Your task to perform on an android device: Open Youtube and go to "Your channel" Image 0: 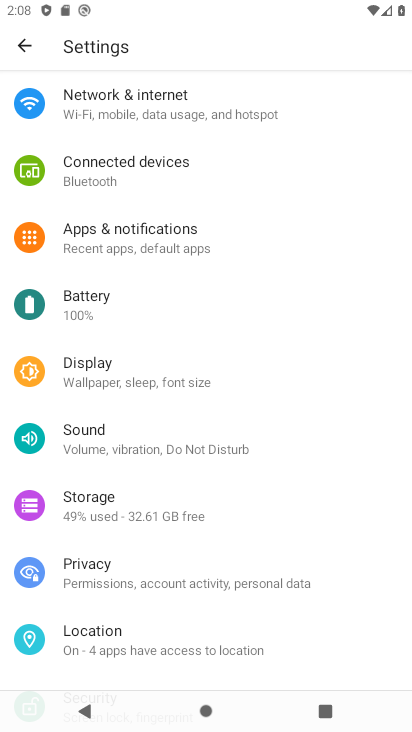
Step 0: press back button
Your task to perform on an android device: Open Youtube and go to "Your channel" Image 1: 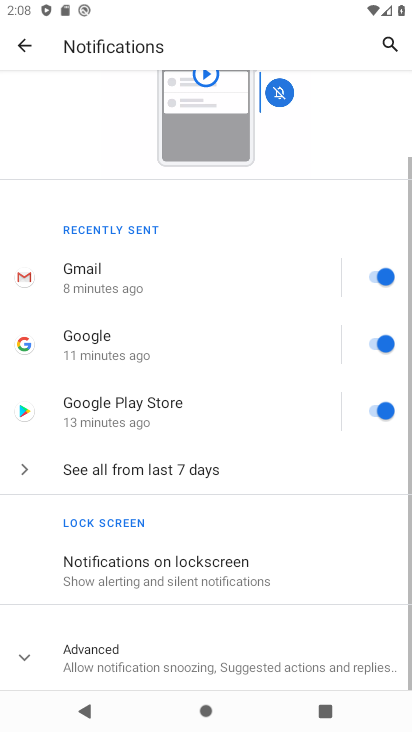
Step 1: press back button
Your task to perform on an android device: Open Youtube and go to "Your channel" Image 2: 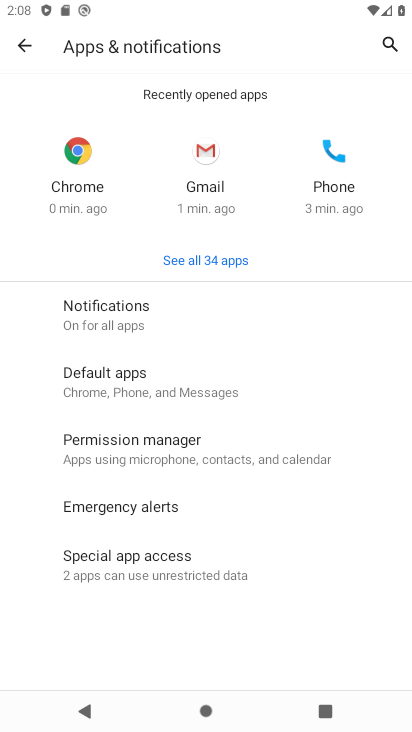
Step 2: press home button
Your task to perform on an android device: Open Youtube and go to "Your channel" Image 3: 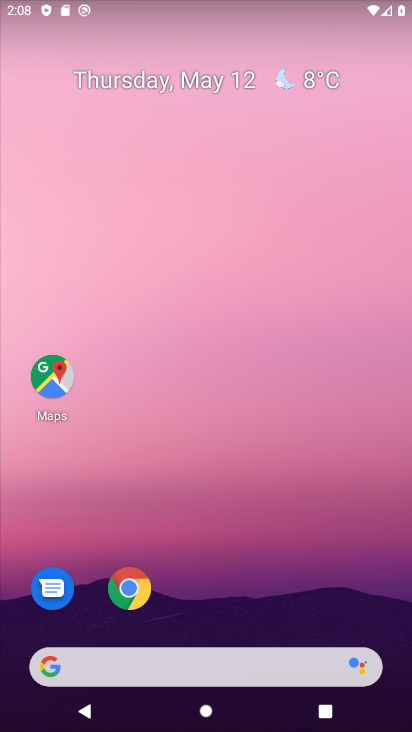
Step 3: drag from (249, 502) to (196, 15)
Your task to perform on an android device: Open Youtube and go to "Your channel" Image 4: 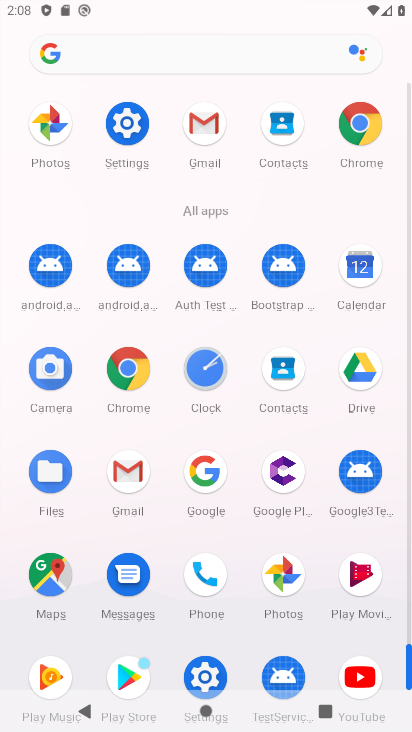
Step 4: drag from (16, 531) to (0, 191)
Your task to perform on an android device: Open Youtube and go to "Your channel" Image 5: 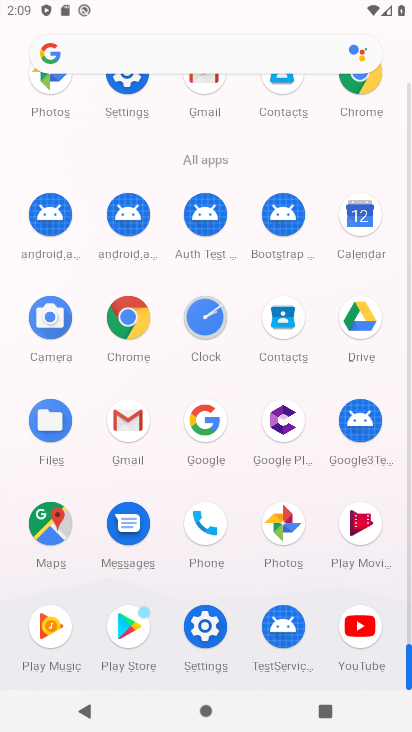
Step 5: click (359, 620)
Your task to perform on an android device: Open Youtube and go to "Your channel" Image 6: 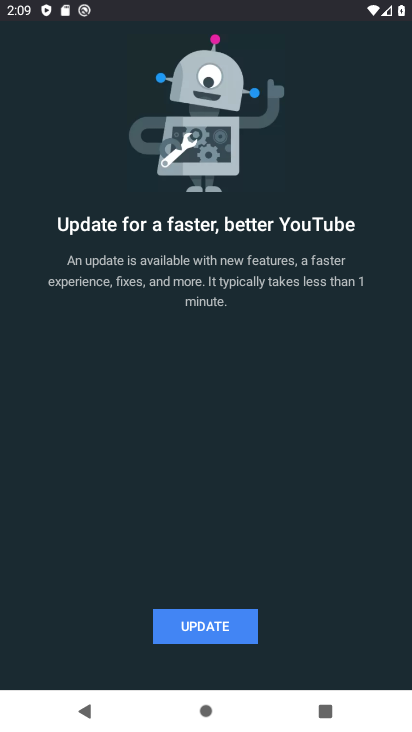
Step 6: click (210, 627)
Your task to perform on an android device: Open Youtube and go to "Your channel" Image 7: 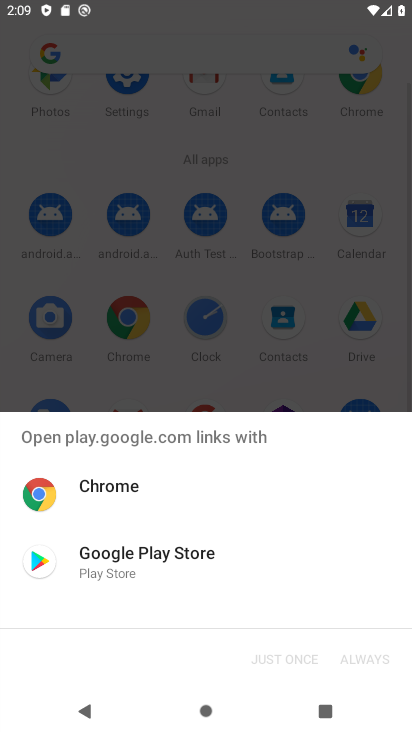
Step 7: click (98, 573)
Your task to perform on an android device: Open Youtube and go to "Your channel" Image 8: 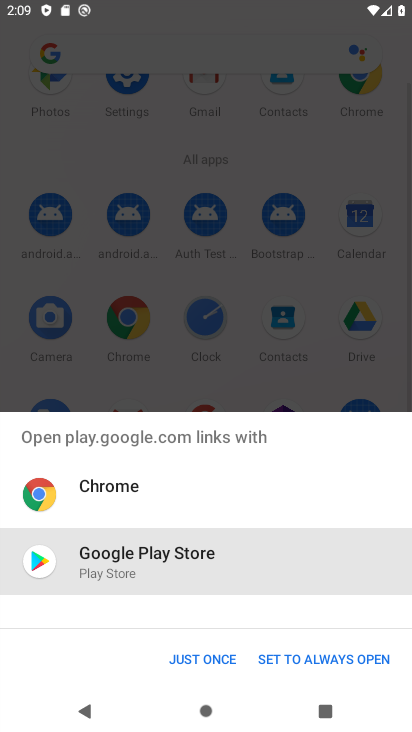
Step 8: click (194, 659)
Your task to perform on an android device: Open Youtube and go to "Your channel" Image 9: 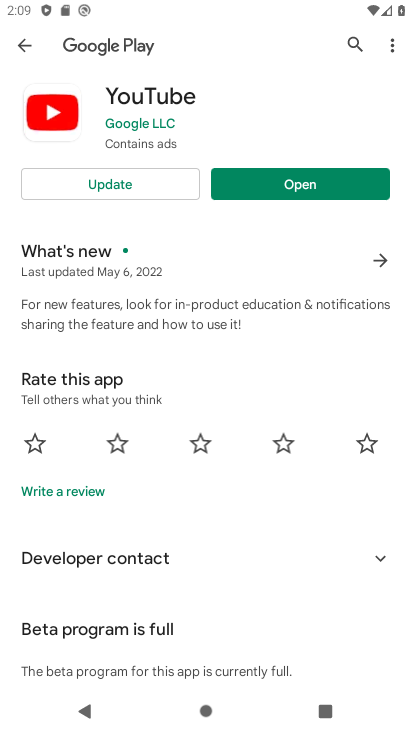
Step 9: click (142, 183)
Your task to perform on an android device: Open Youtube and go to "Your channel" Image 10: 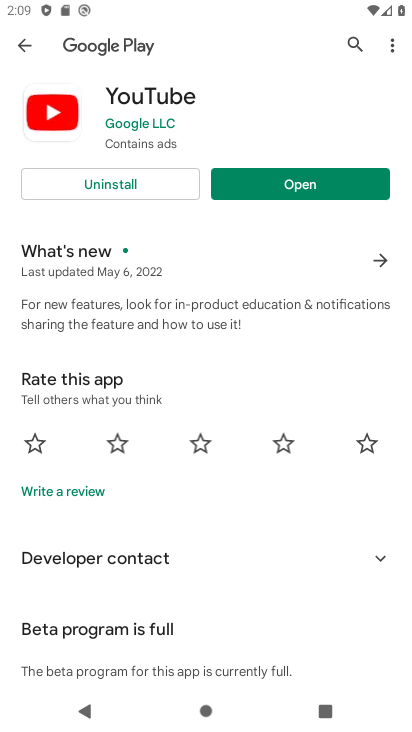
Step 10: click (289, 187)
Your task to perform on an android device: Open Youtube and go to "Your channel" Image 11: 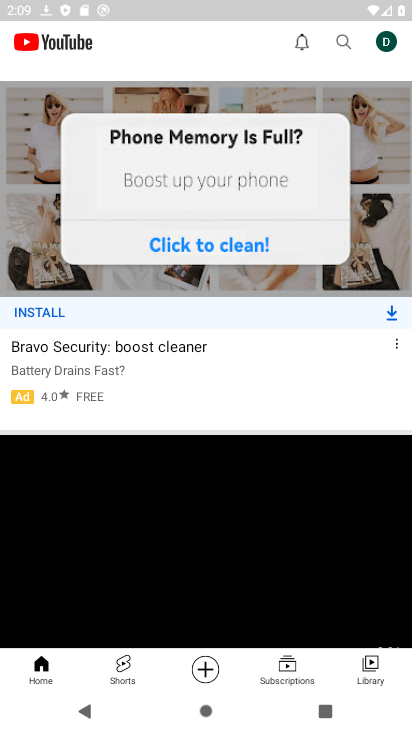
Step 11: click (370, 659)
Your task to perform on an android device: Open Youtube and go to "Your channel" Image 12: 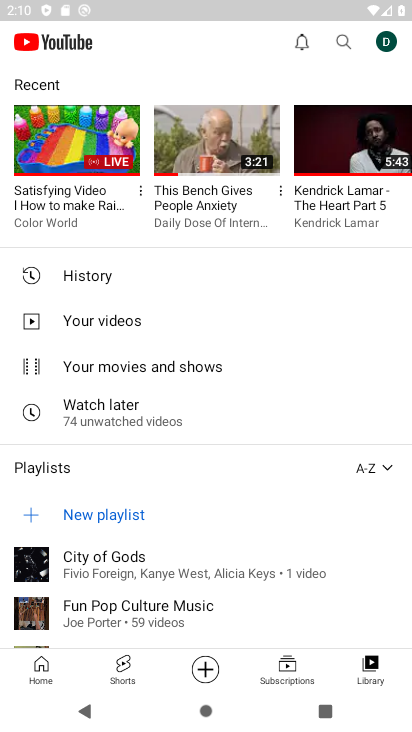
Step 12: click (120, 326)
Your task to perform on an android device: Open Youtube and go to "Your channel" Image 13: 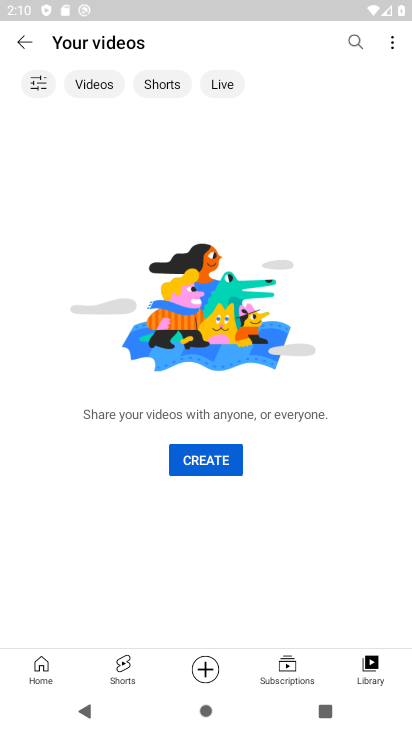
Step 13: click (21, 50)
Your task to perform on an android device: Open Youtube and go to "Your channel" Image 14: 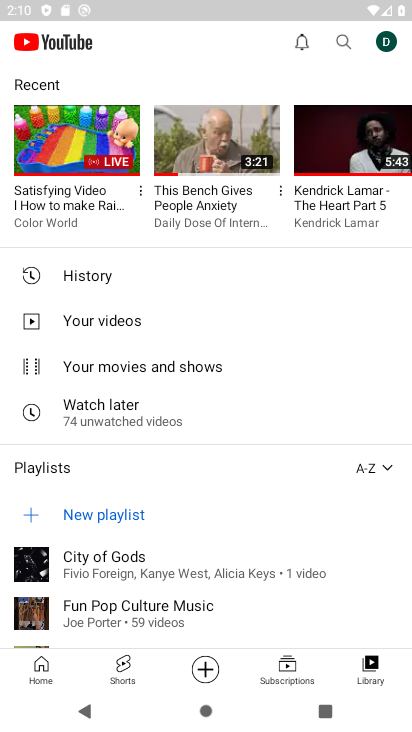
Step 14: drag from (179, 459) to (176, 272)
Your task to perform on an android device: Open Youtube and go to "Your channel" Image 15: 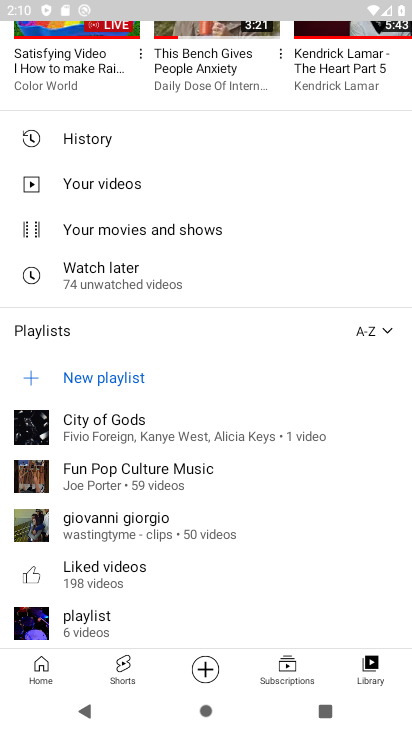
Step 15: drag from (191, 528) to (196, 211)
Your task to perform on an android device: Open Youtube and go to "Your channel" Image 16: 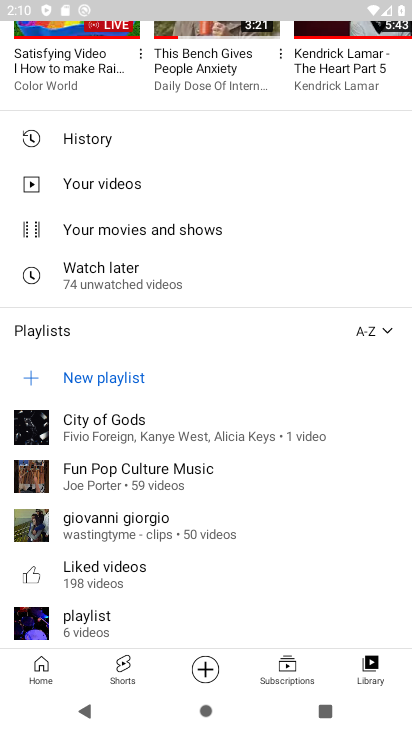
Step 16: drag from (212, 516) to (236, 215)
Your task to perform on an android device: Open Youtube and go to "Your channel" Image 17: 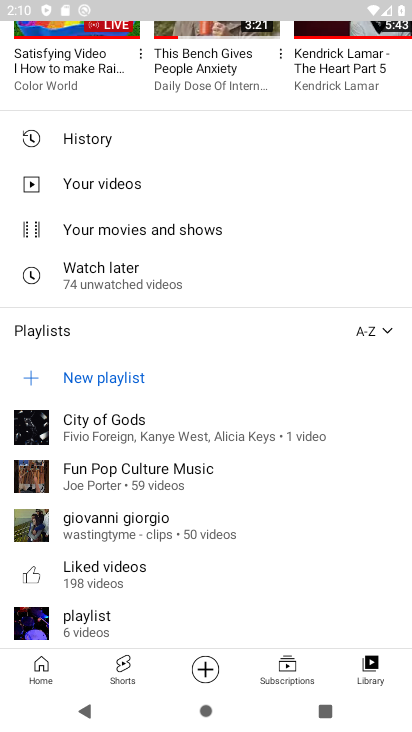
Step 17: drag from (298, 493) to (262, 173)
Your task to perform on an android device: Open Youtube and go to "Your channel" Image 18: 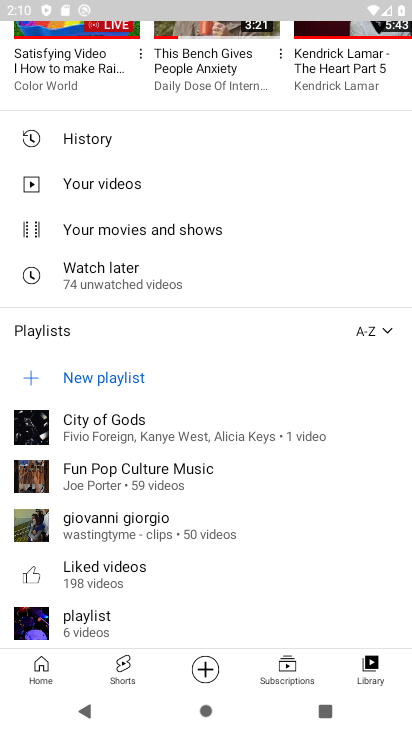
Step 18: drag from (287, 162) to (299, 495)
Your task to perform on an android device: Open Youtube and go to "Your channel" Image 19: 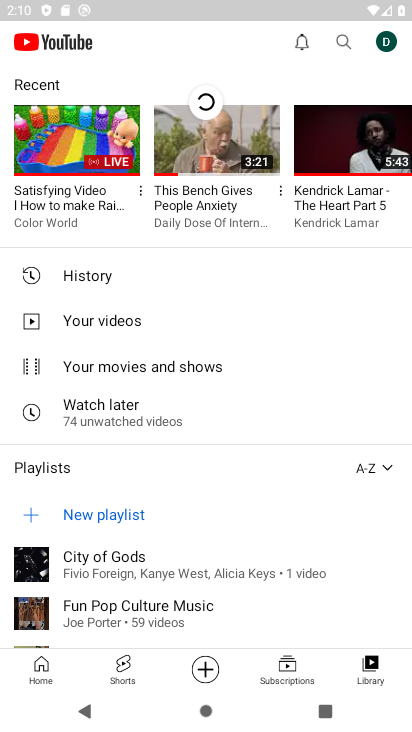
Step 19: click (87, 319)
Your task to perform on an android device: Open Youtube and go to "Your channel" Image 20: 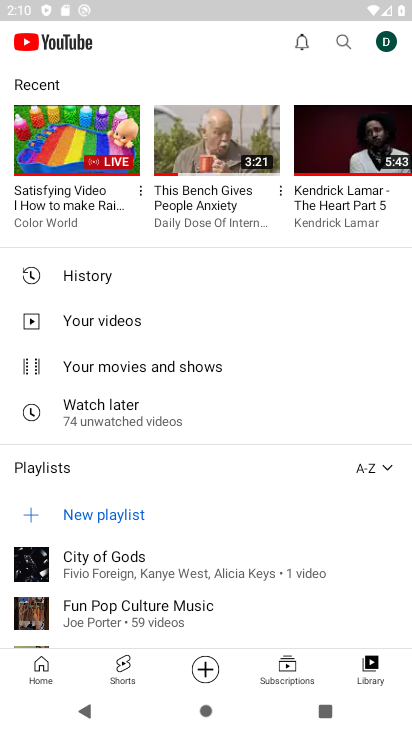
Step 20: task complete